Your task to perform on an android device: turn on wifi Image 0: 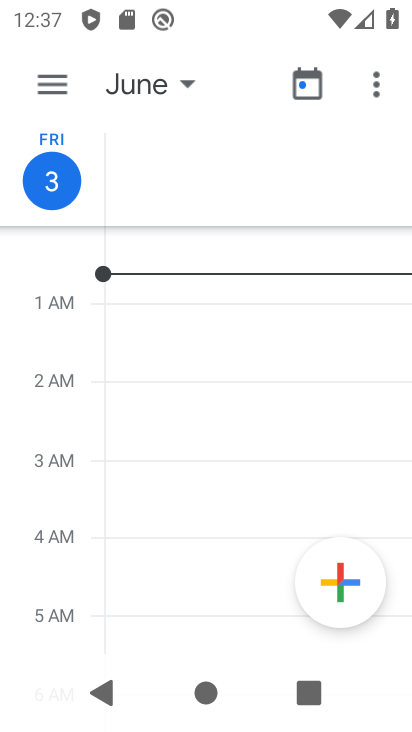
Step 0: press home button
Your task to perform on an android device: turn on wifi Image 1: 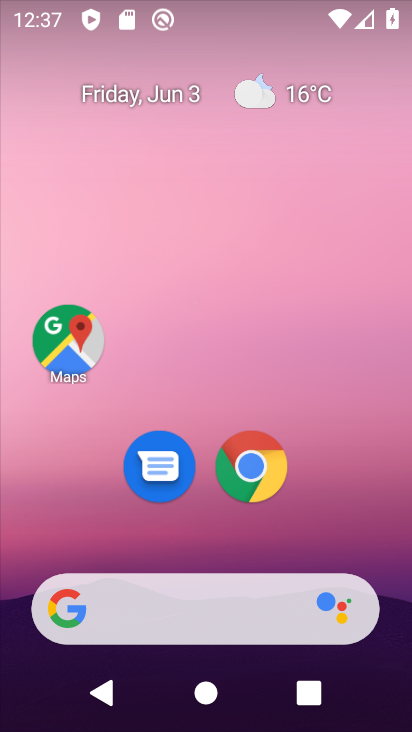
Step 1: drag from (250, 534) to (253, 113)
Your task to perform on an android device: turn on wifi Image 2: 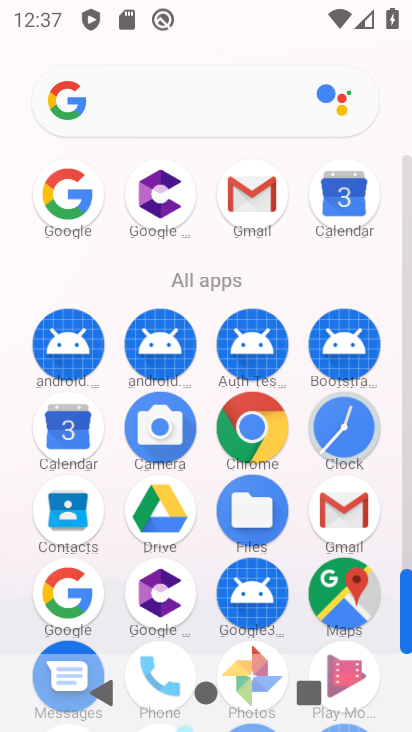
Step 2: drag from (192, 641) to (179, 233)
Your task to perform on an android device: turn on wifi Image 3: 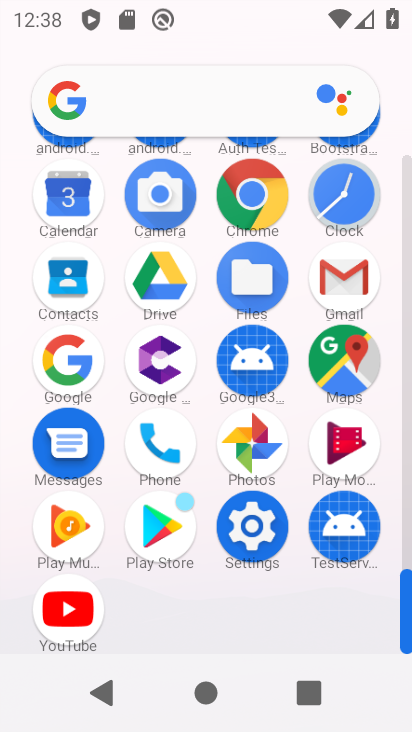
Step 3: click (248, 541)
Your task to perform on an android device: turn on wifi Image 4: 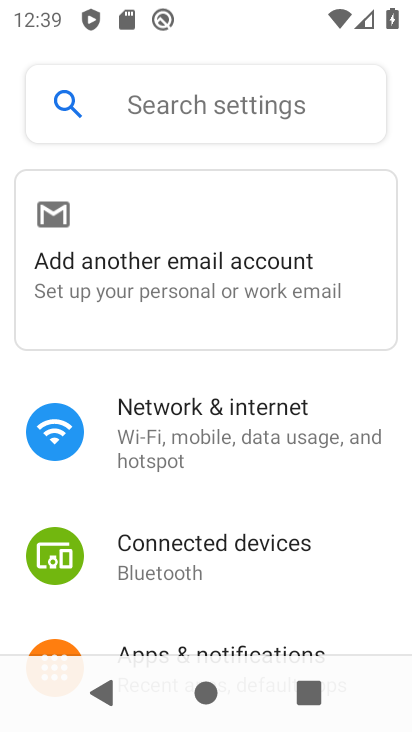
Step 4: click (196, 420)
Your task to perform on an android device: turn on wifi Image 5: 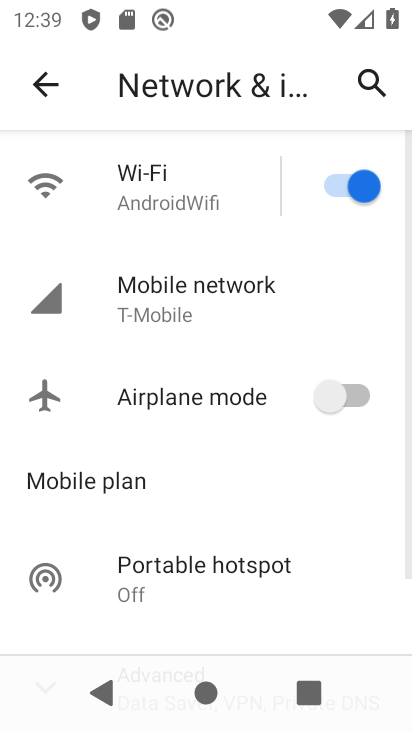
Step 5: task complete